Your task to perform on an android device: find snoozed emails in the gmail app Image 0: 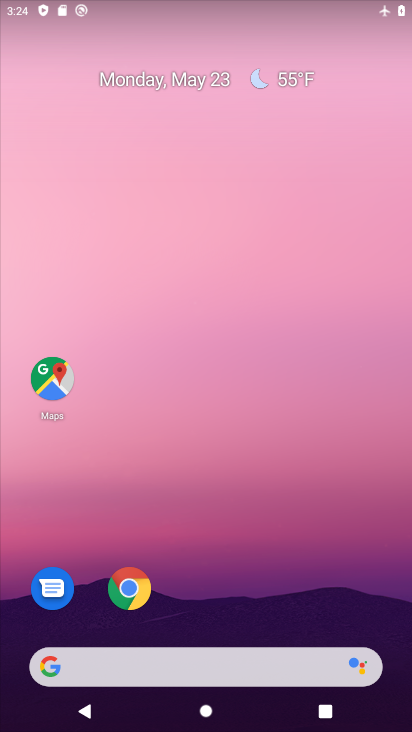
Step 0: drag from (224, 567) to (236, 84)
Your task to perform on an android device: find snoozed emails in the gmail app Image 1: 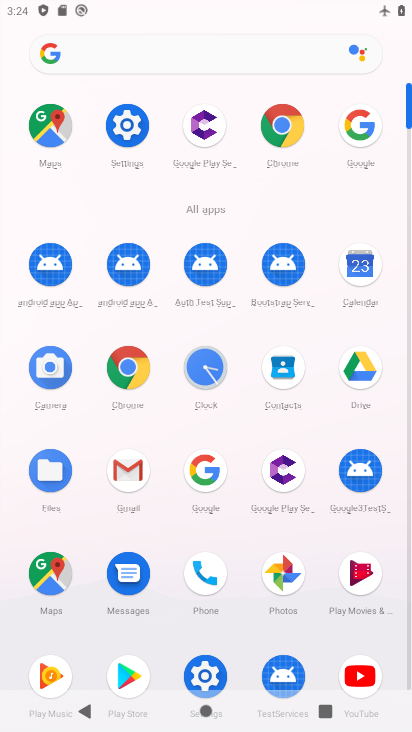
Step 1: click (130, 472)
Your task to perform on an android device: find snoozed emails in the gmail app Image 2: 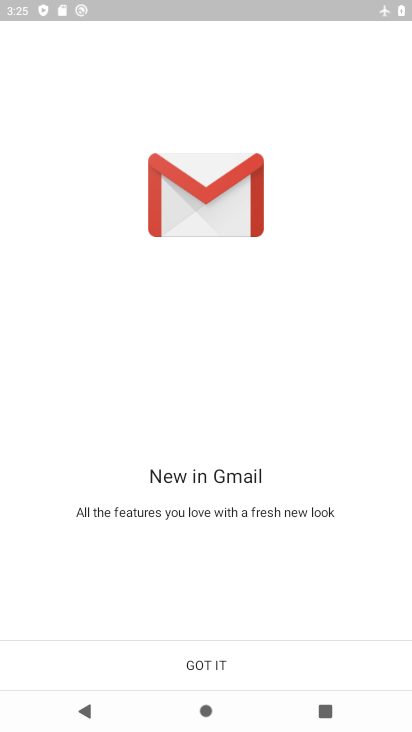
Step 2: click (213, 657)
Your task to perform on an android device: find snoozed emails in the gmail app Image 3: 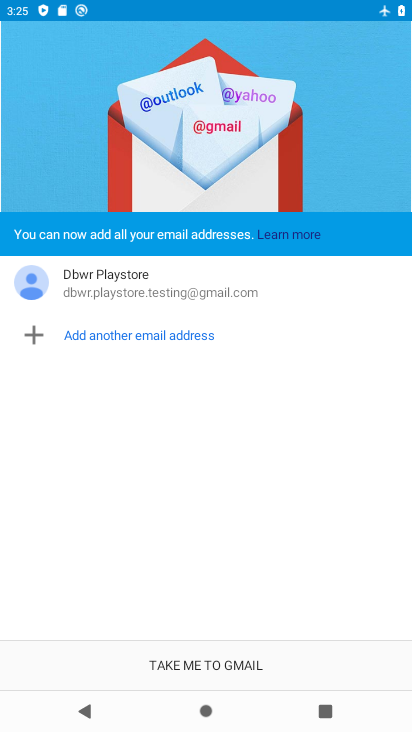
Step 3: click (207, 660)
Your task to perform on an android device: find snoozed emails in the gmail app Image 4: 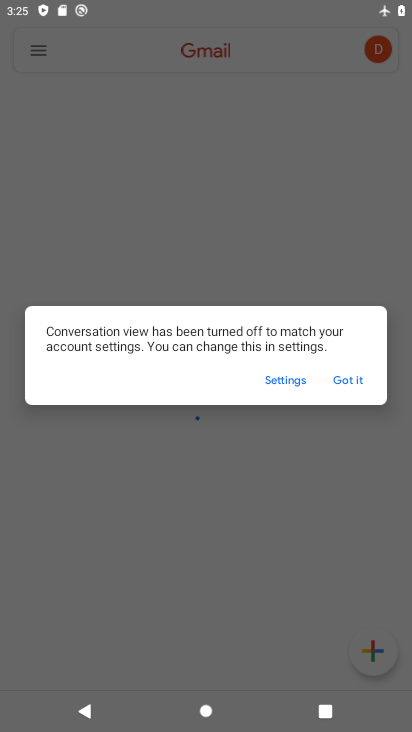
Step 4: click (344, 378)
Your task to perform on an android device: find snoozed emails in the gmail app Image 5: 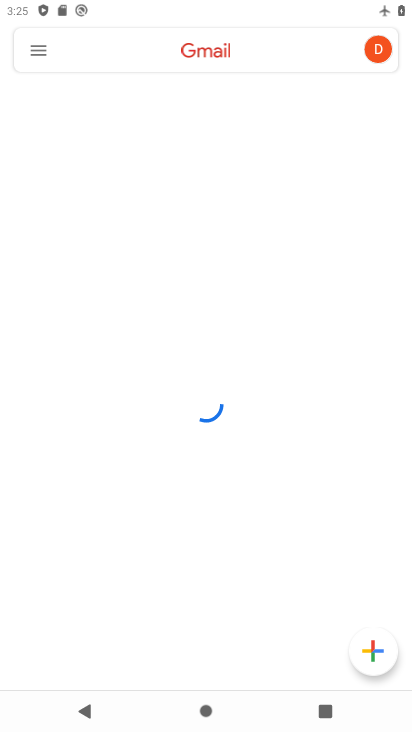
Step 5: click (35, 48)
Your task to perform on an android device: find snoozed emails in the gmail app Image 6: 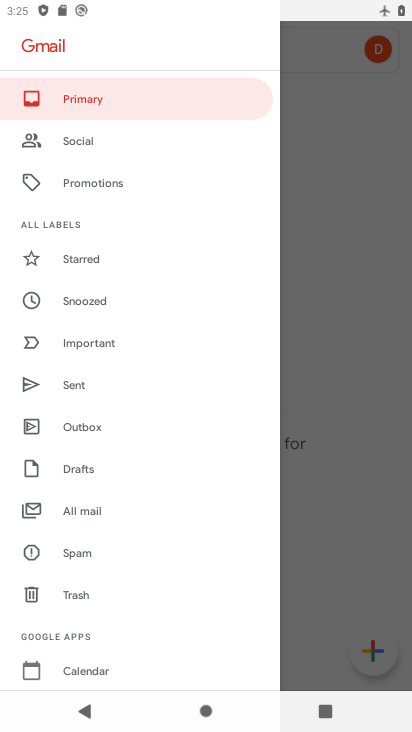
Step 6: click (97, 294)
Your task to perform on an android device: find snoozed emails in the gmail app Image 7: 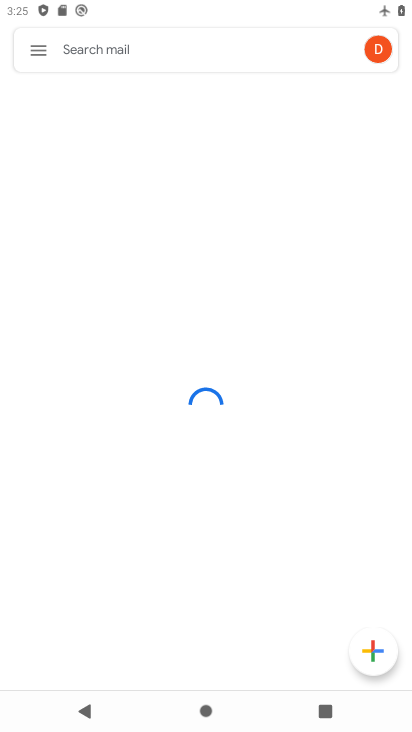
Step 7: task complete